Your task to perform on an android device: Go to Google Image 0: 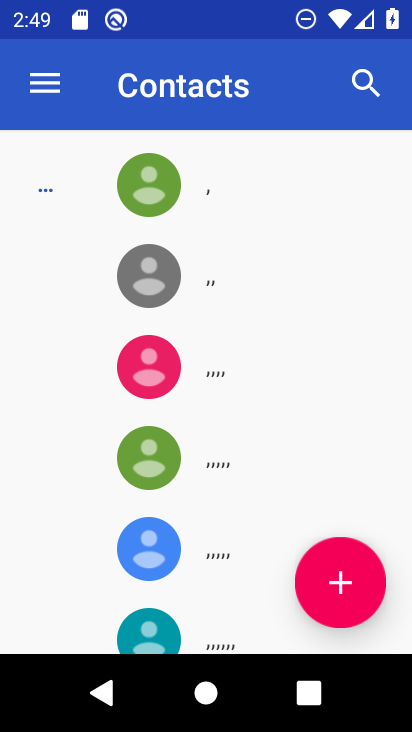
Step 0: press home button
Your task to perform on an android device: Go to Google Image 1: 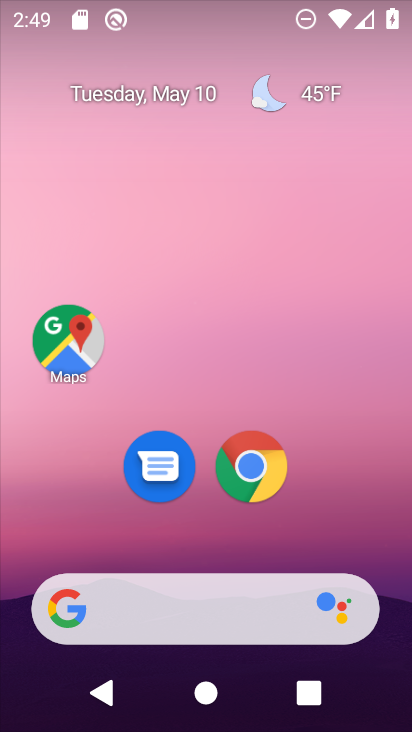
Step 1: drag from (295, 503) to (331, 0)
Your task to perform on an android device: Go to Google Image 2: 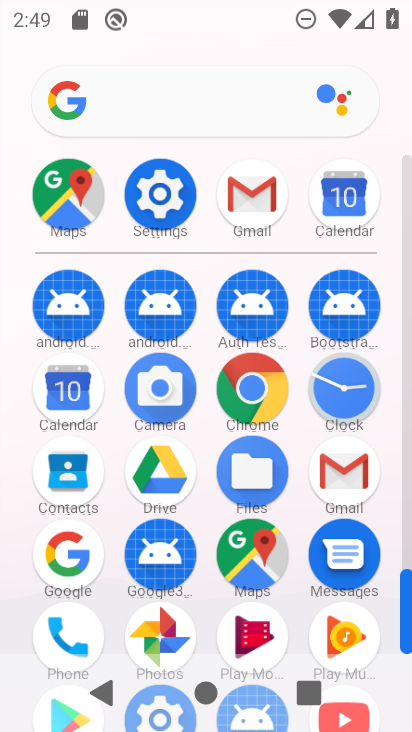
Step 2: click (74, 570)
Your task to perform on an android device: Go to Google Image 3: 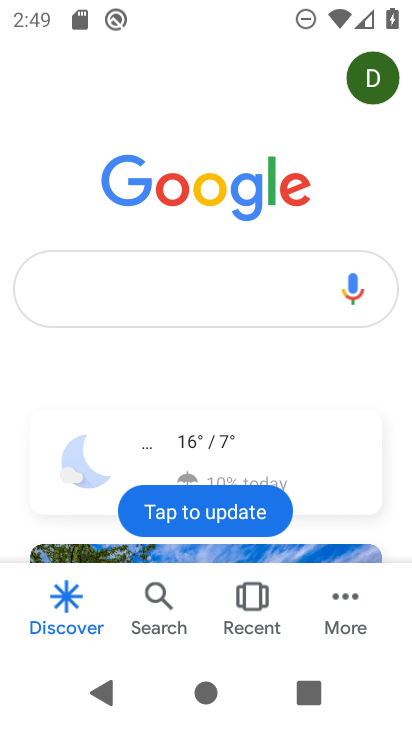
Step 3: task complete